Your task to perform on an android device: toggle wifi Image 0: 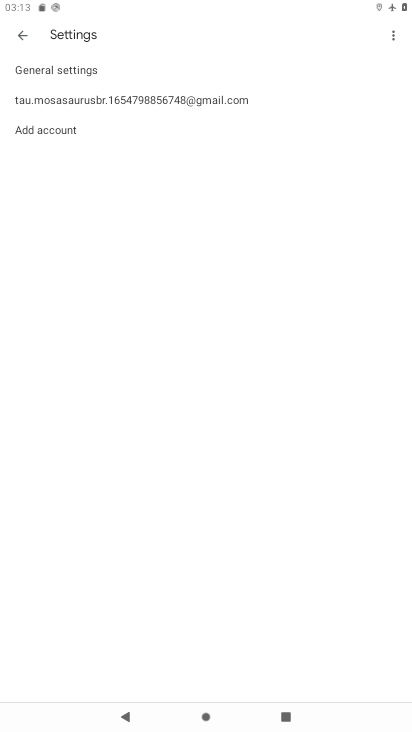
Step 0: press home button
Your task to perform on an android device: toggle wifi Image 1: 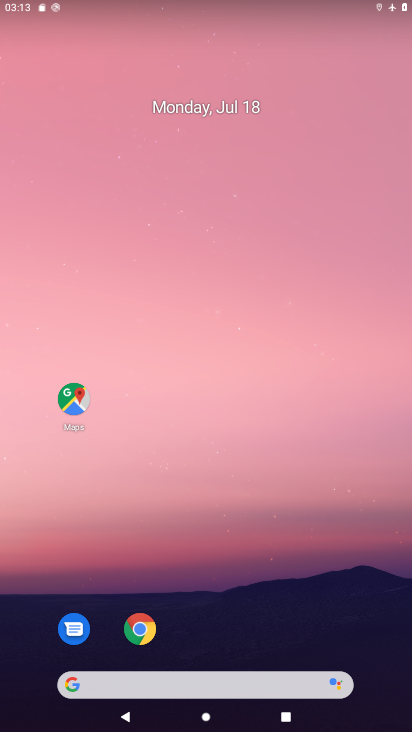
Step 1: drag from (321, 613) to (385, 131)
Your task to perform on an android device: toggle wifi Image 2: 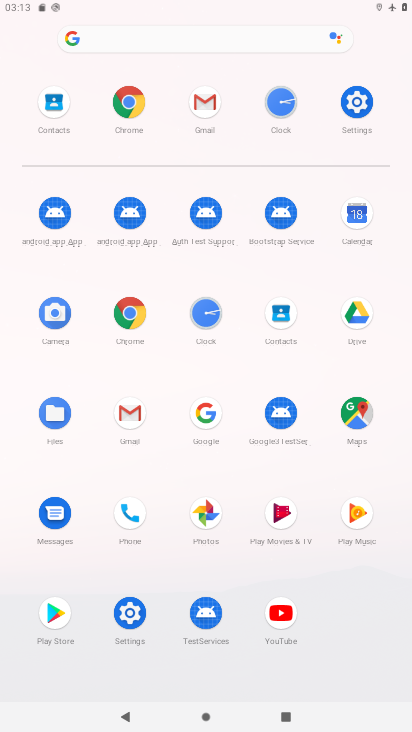
Step 2: click (356, 115)
Your task to perform on an android device: toggle wifi Image 3: 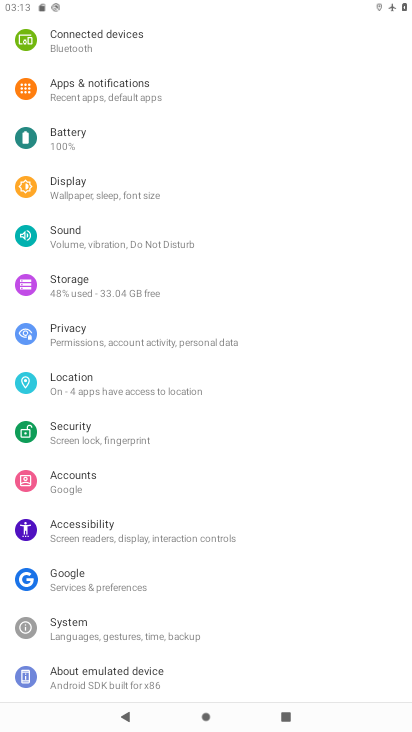
Step 3: drag from (321, 222) to (318, 327)
Your task to perform on an android device: toggle wifi Image 4: 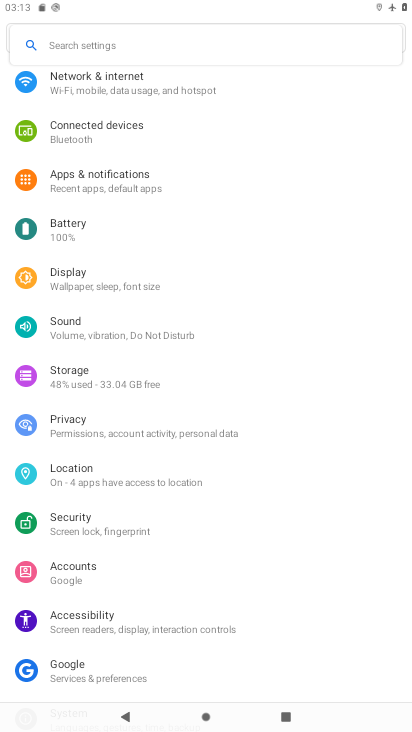
Step 4: drag from (318, 252) to (319, 345)
Your task to perform on an android device: toggle wifi Image 5: 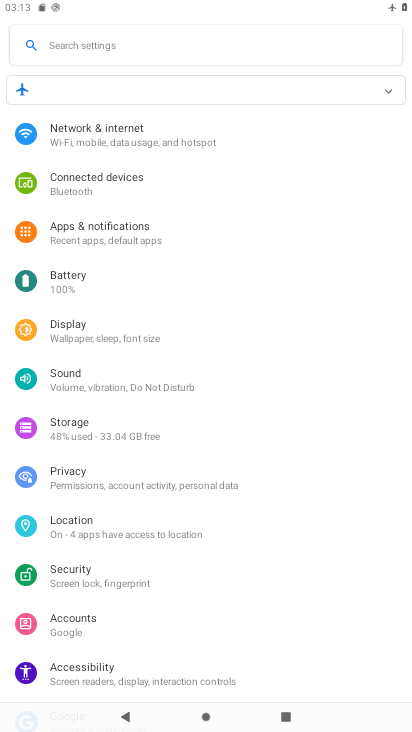
Step 5: drag from (318, 256) to (311, 368)
Your task to perform on an android device: toggle wifi Image 6: 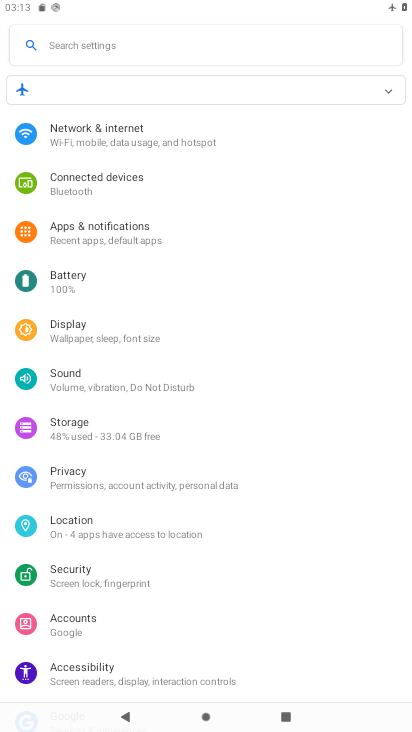
Step 6: click (229, 143)
Your task to perform on an android device: toggle wifi Image 7: 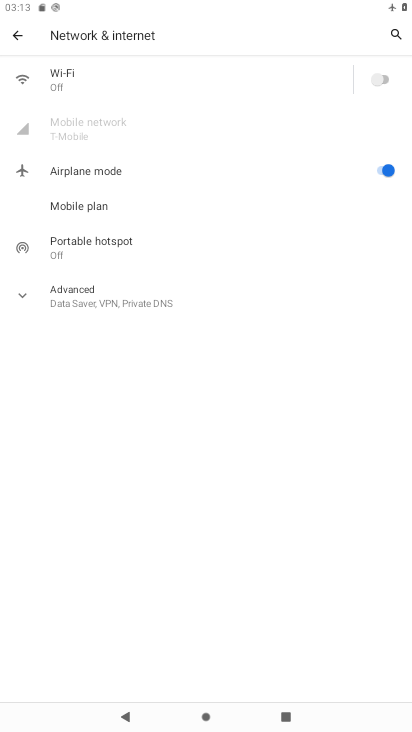
Step 7: click (375, 83)
Your task to perform on an android device: toggle wifi Image 8: 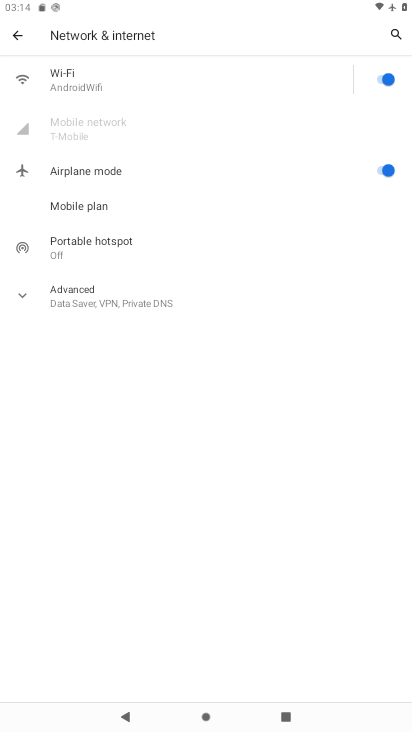
Step 8: task complete